Your task to perform on an android device: Open sound settings Image 0: 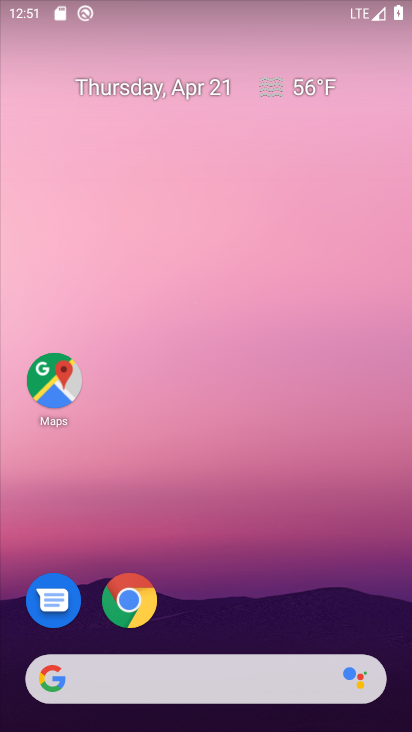
Step 0: drag from (300, 560) to (306, 82)
Your task to perform on an android device: Open sound settings Image 1: 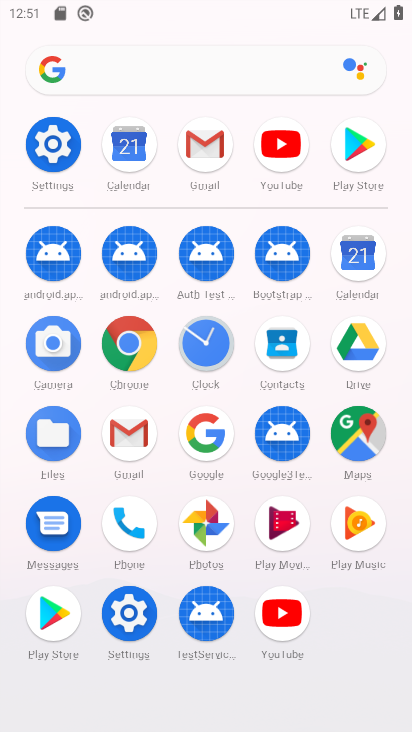
Step 1: click (51, 132)
Your task to perform on an android device: Open sound settings Image 2: 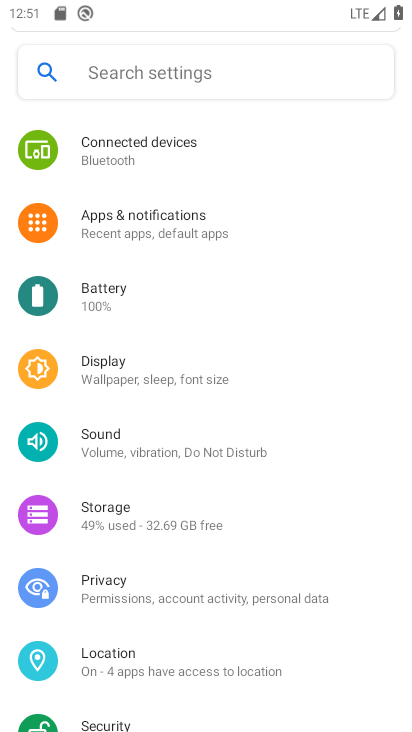
Step 2: click (166, 447)
Your task to perform on an android device: Open sound settings Image 3: 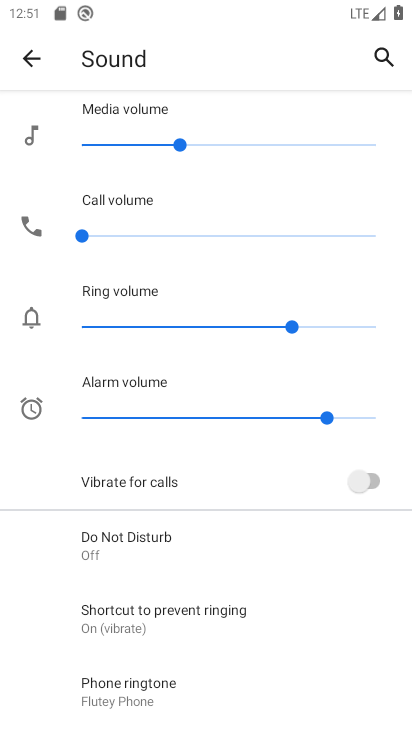
Step 3: task complete